Your task to perform on an android device: Go to Wikipedia Image 0: 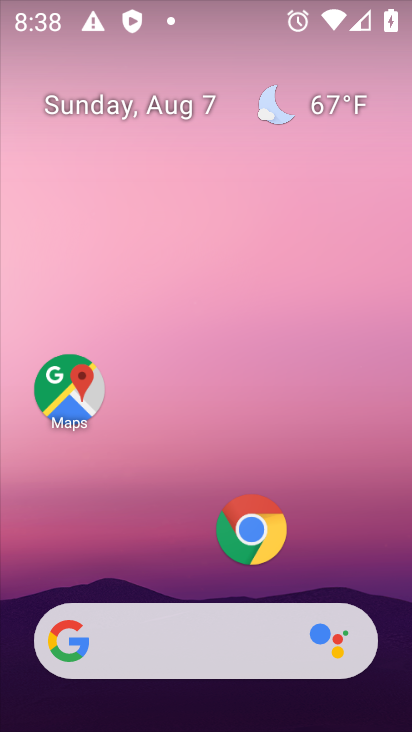
Step 0: click (270, 549)
Your task to perform on an android device: Go to Wikipedia Image 1: 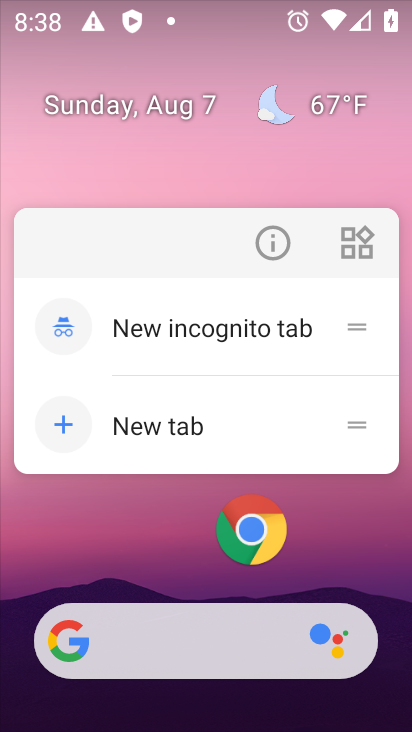
Step 1: click (237, 541)
Your task to perform on an android device: Go to Wikipedia Image 2: 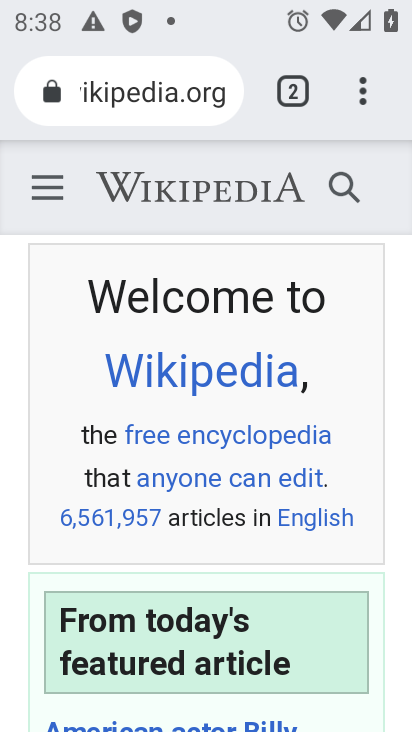
Step 2: click (237, 374)
Your task to perform on an android device: Go to Wikipedia Image 3: 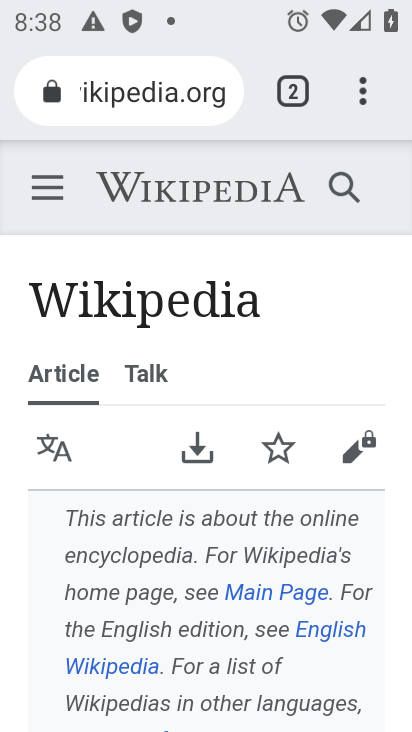
Step 3: task complete